Your task to perform on an android device: turn off airplane mode Image 0: 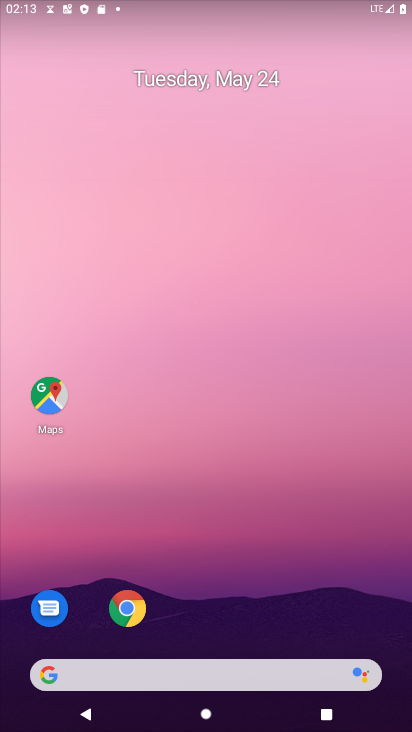
Step 0: drag from (258, 611) to (146, 84)
Your task to perform on an android device: turn off airplane mode Image 1: 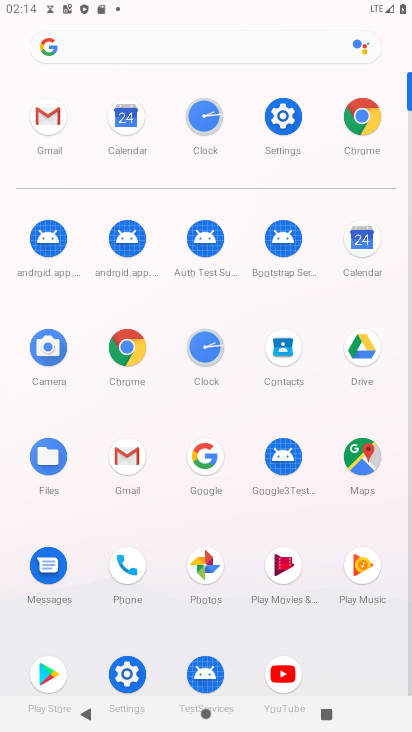
Step 1: click (272, 127)
Your task to perform on an android device: turn off airplane mode Image 2: 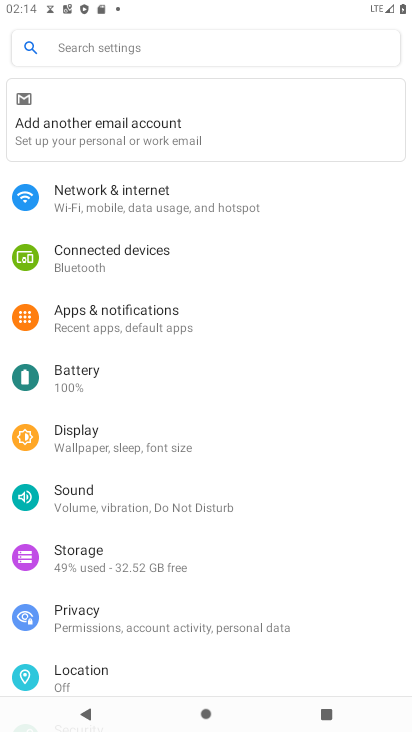
Step 2: click (158, 200)
Your task to perform on an android device: turn off airplane mode Image 3: 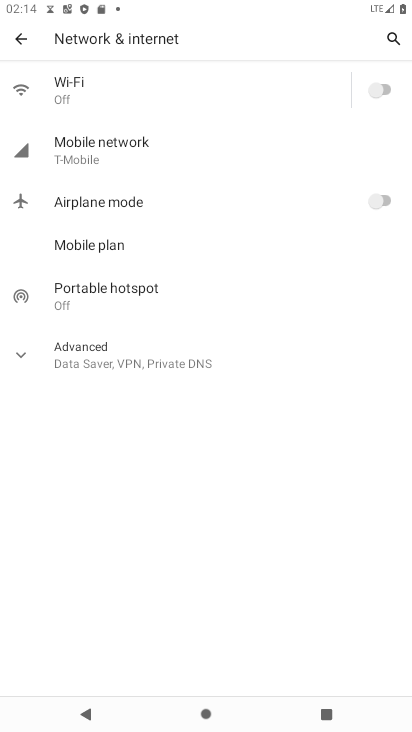
Step 3: task complete